Your task to perform on an android device: change alarm snooze length Image 0: 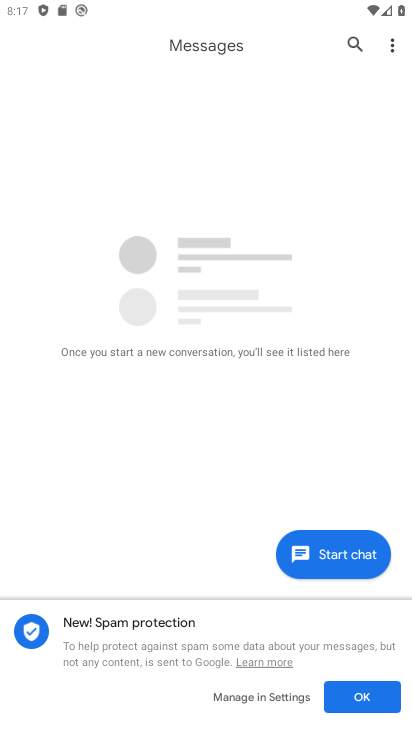
Step 0: press home button
Your task to perform on an android device: change alarm snooze length Image 1: 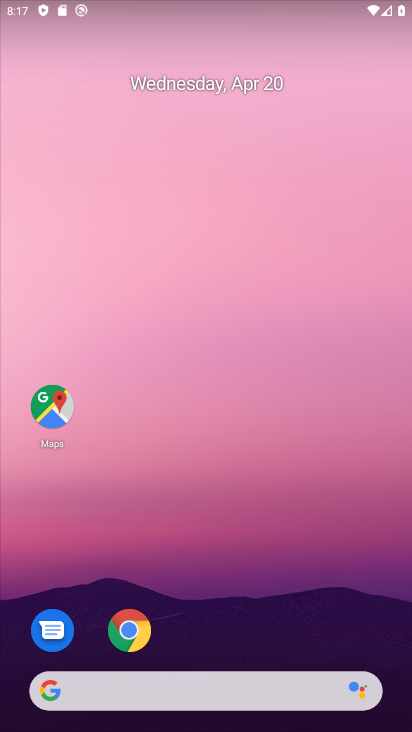
Step 1: drag from (230, 615) to (333, 11)
Your task to perform on an android device: change alarm snooze length Image 2: 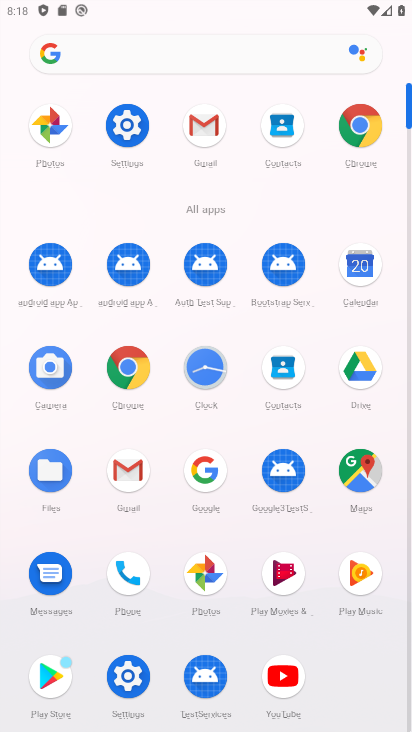
Step 2: click (199, 368)
Your task to perform on an android device: change alarm snooze length Image 3: 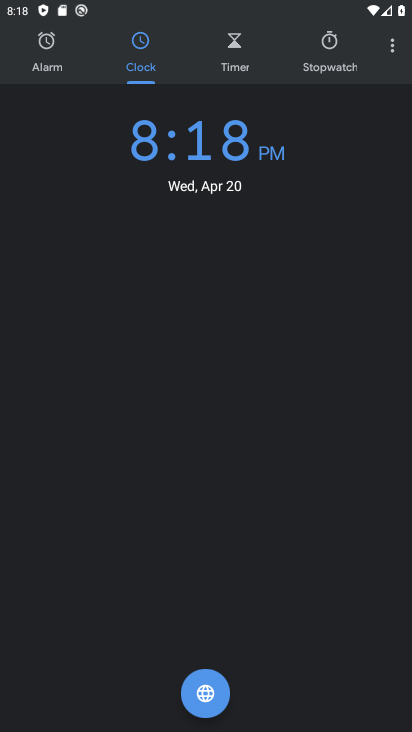
Step 3: click (383, 52)
Your task to perform on an android device: change alarm snooze length Image 4: 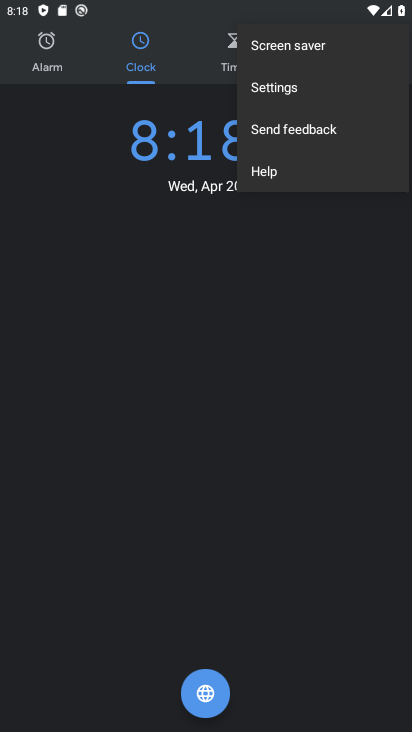
Step 4: click (277, 87)
Your task to perform on an android device: change alarm snooze length Image 5: 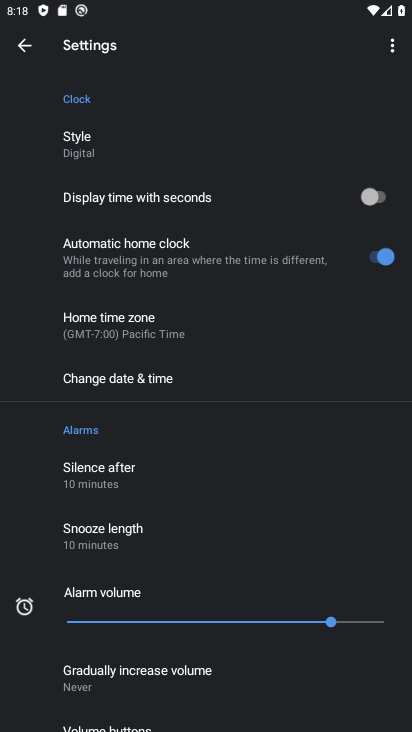
Step 5: drag from (162, 591) to (217, 182)
Your task to perform on an android device: change alarm snooze length Image 6: 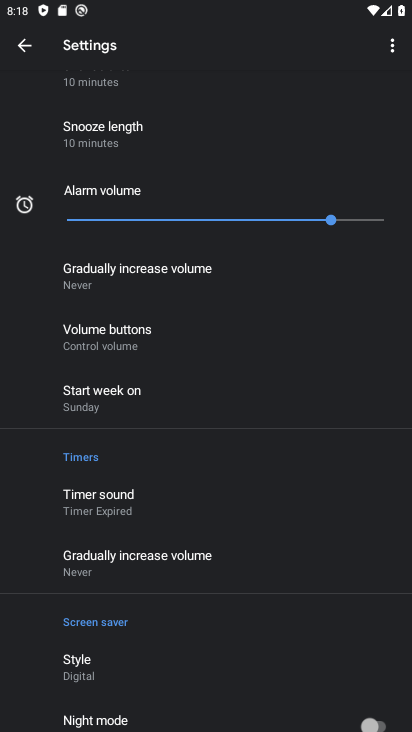
Step 6: drag from (99, 651) to (128, 330)
Your task to perform on an android device: change alarm snooze length Image 7: 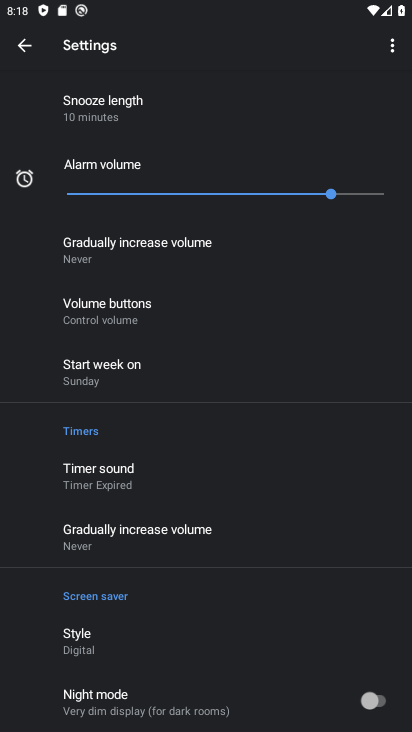
Step 7: drag from (146, 242) to (119, 560)
Your task to perform on an android device: change alarm snooze length Image 8: 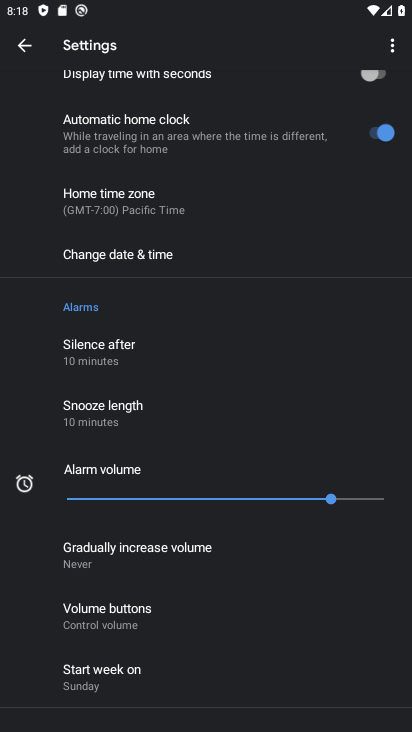
Step 8: click (112, 420)
Your task to perform on an android device: change alarm snooze length Image 9: 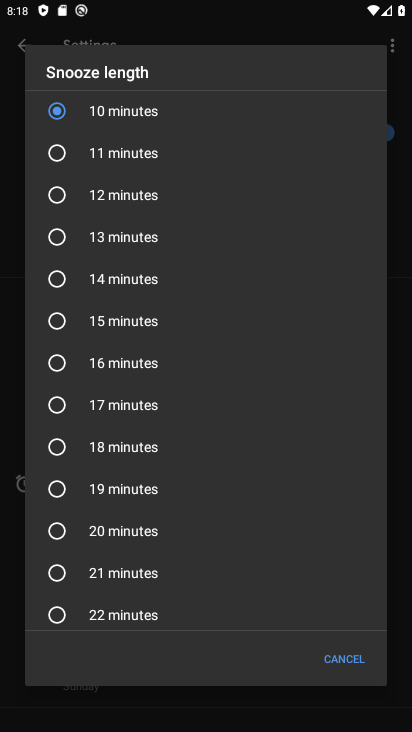
Step 9: click (55, 439)
Your task to perform on an android device: change alarm snooze length Image 10: 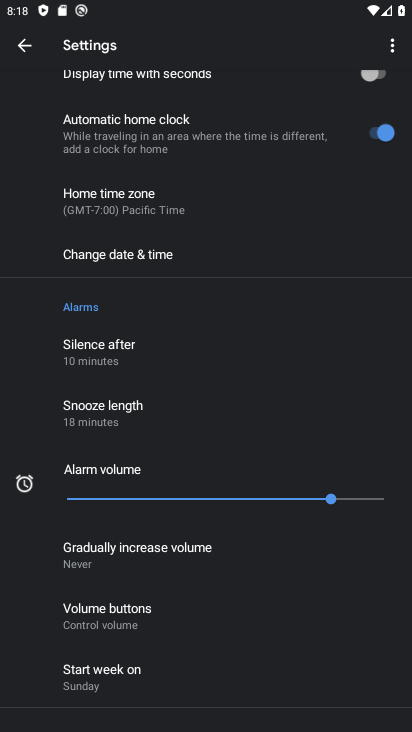
Step 10: task complete